Your task to perform on an android device: Open maps Image 0: 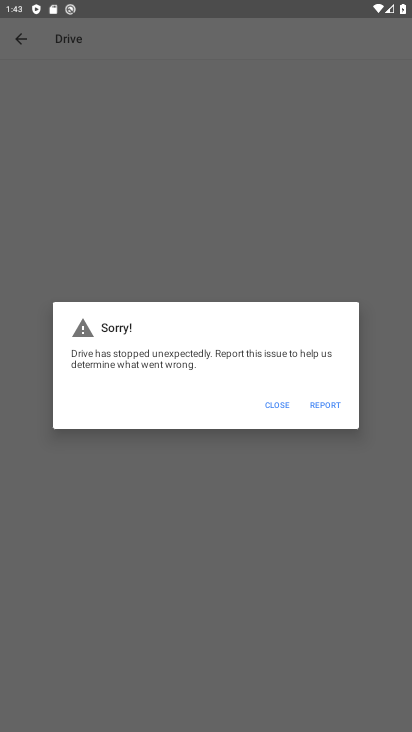
Step 0: press home button
Your task to perform on an android device: Open maps Image 1: 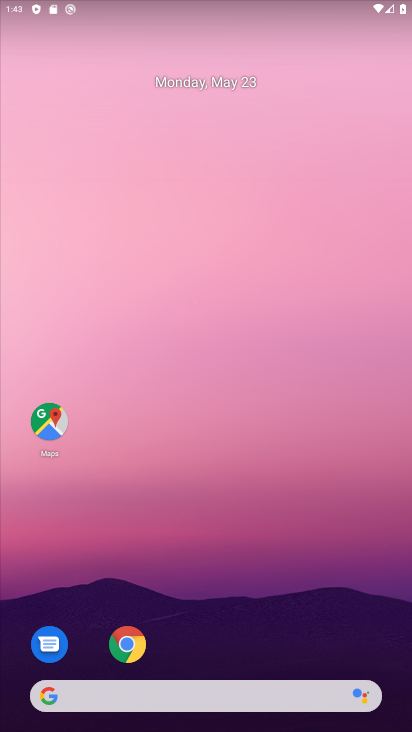
Step 1: click (56, 416)
Your task to perform on an android device: Open maps Image 2: 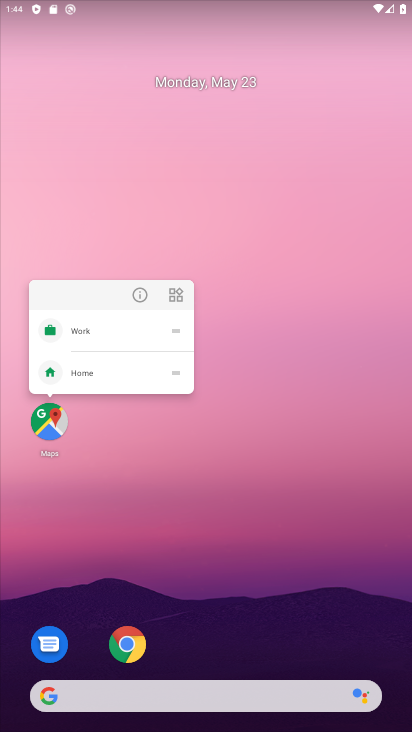
Step 2: click (43, 418)
Your task to perform on an android device: Open maps Image 3: 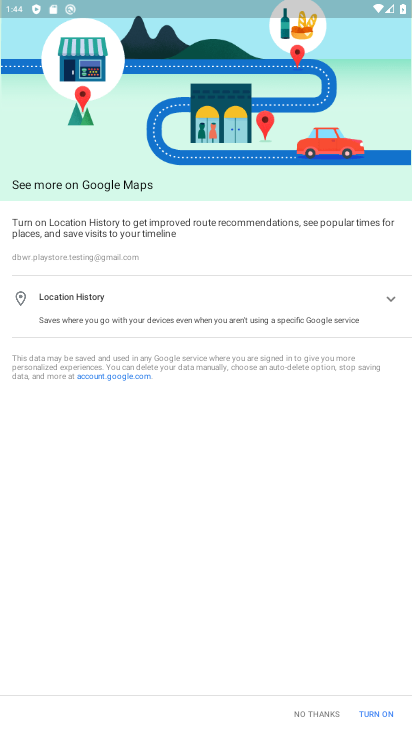
Step 3: task complete